Your task to perform on an android device: Search for sushi restaurants on Maps Image 0: 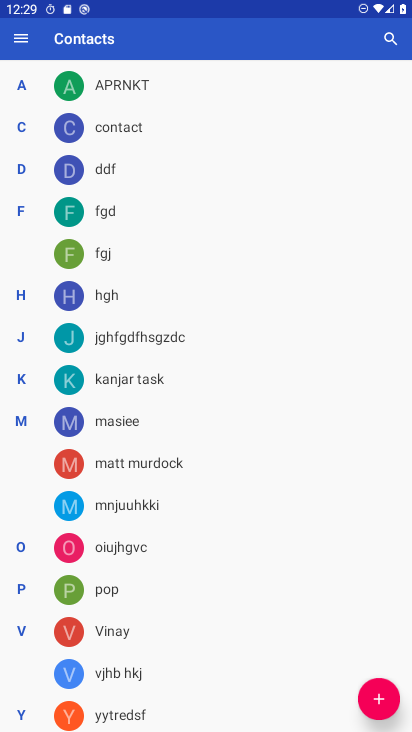
Step 0: press home button
Your task to perform on an android device: Search for sushi restaurants on Maps Image 1: 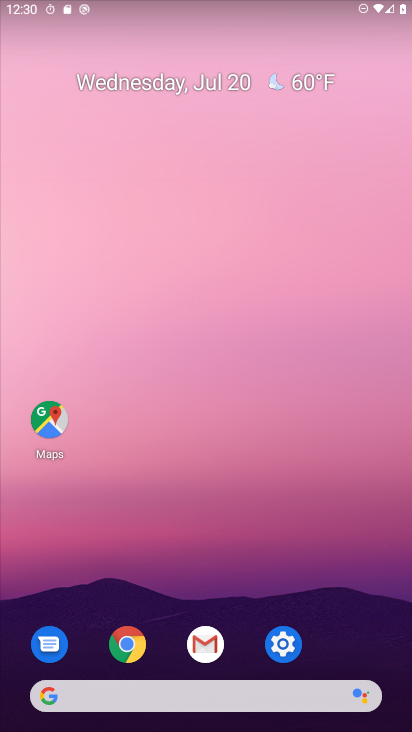
Step 1: click (32, 417)
Your task to perform on an android device: Search for sushi restaurants on Maps Image 2: 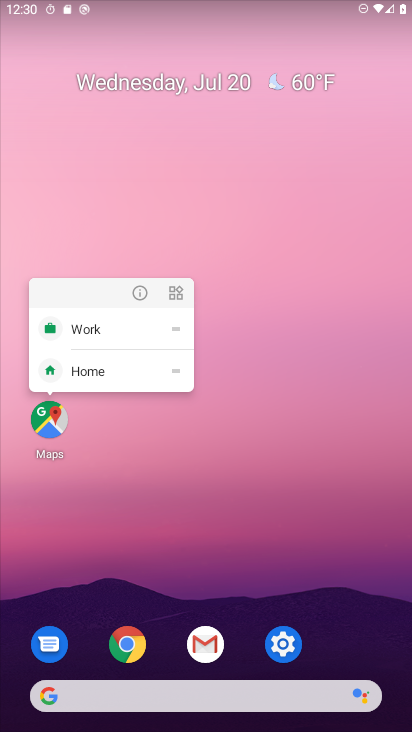
Step 2: click (53, 427)
Your task to perform on an android device: Search for sushi restaurants on Maps Image 3: 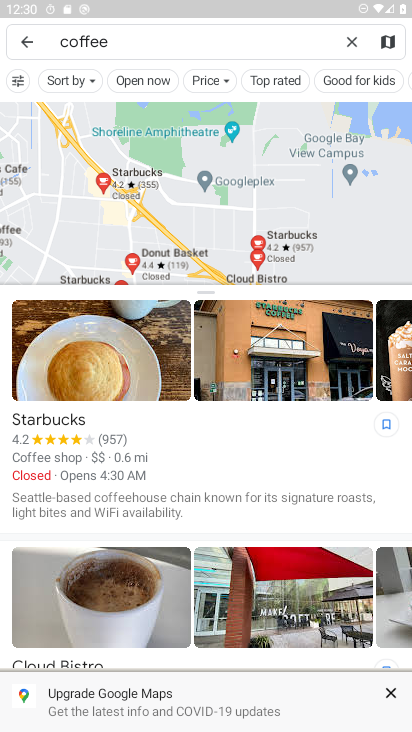
Step 3: click (21, 41)
Your task to perform on an android device: Search for sushi restaurants on Maps Image 4: 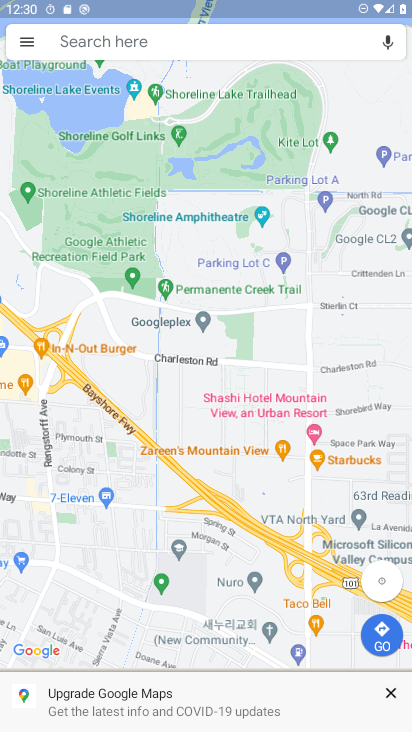
Step 4: click (70, 48)
Your task to perform on an android device: Search for sushi restaurants on Maps Image 5: 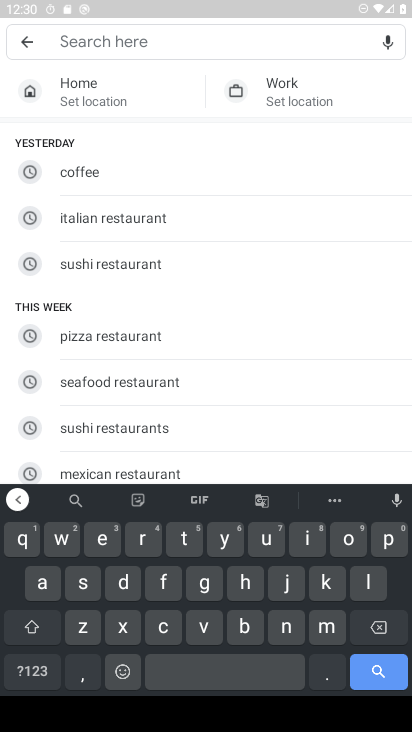
Step 5: click (129, 264)
Your task to perform on an android device: Search for sushi restaurants on Maps Image 6: 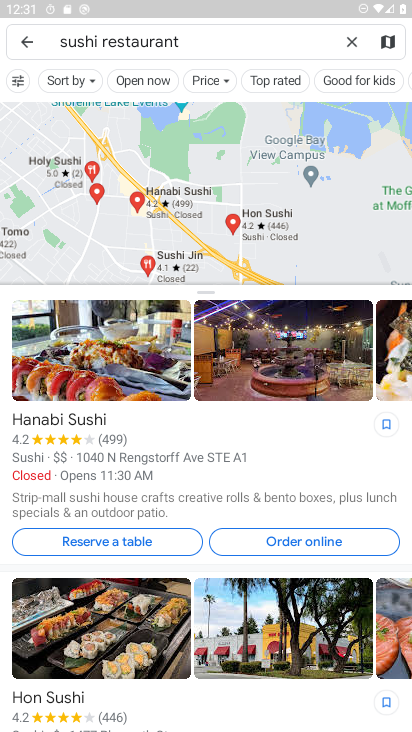
Step 6: task complete